Your task to perform on an android device: Open wifi settings Image 0: 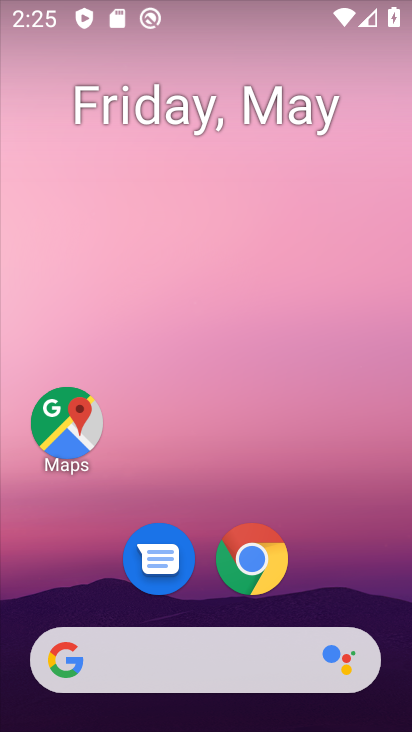
Step 0: drag from (354, 582) to (171, 23)
Your task to perform on an android device: Open wifi settings Image 1: 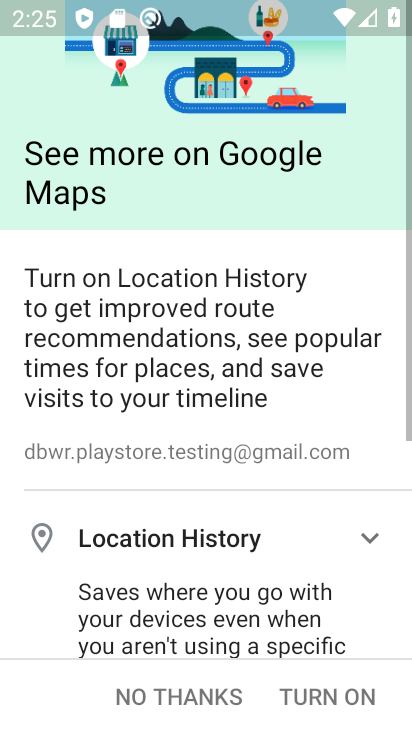
Step 1: press home button
Your task to perform on an android device: Open wifi settings Image 2: 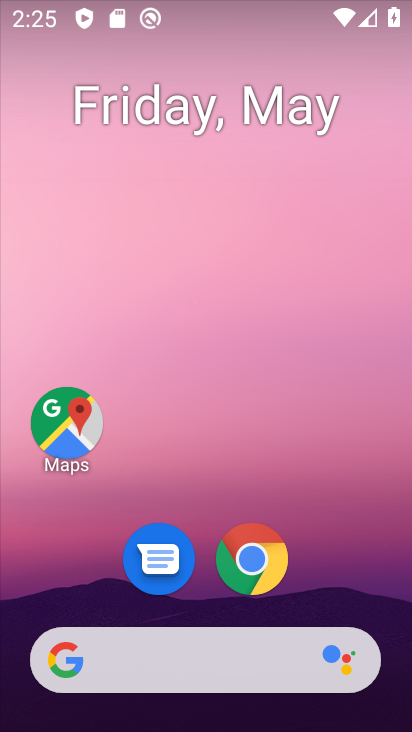
Step 2: drag from (312, 364) to (183, 31)
Your task to perform on an android device: Open wifi settings Image 3: 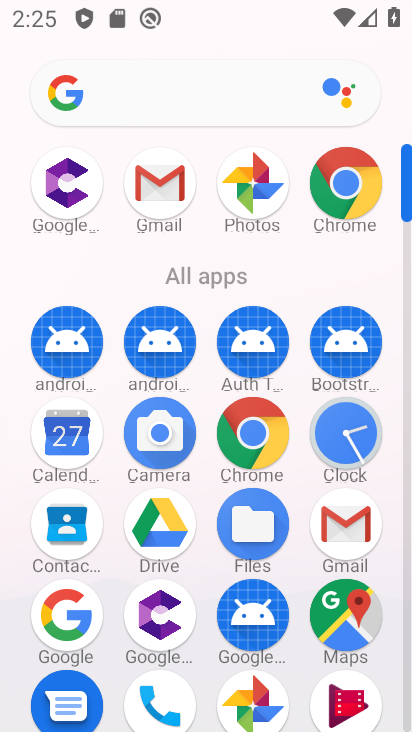
Step 3: drag from (207, 662) to (184, 212)
Your task to perform on an android device: Open wifi settings Image 4: 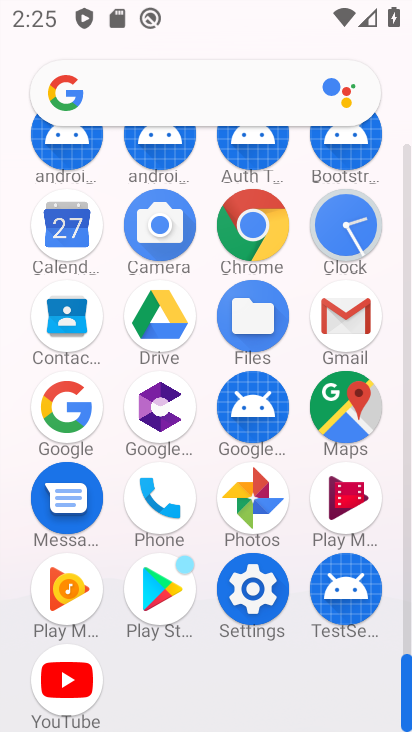
Step 4: click (253, 593)
Your task to perform on an android device: Open wifi settings Image 5: 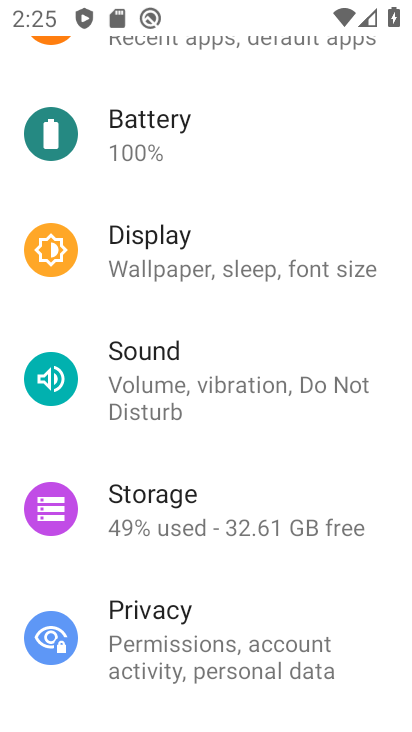
Step 5: drag from (243, 155) to (242, 663)
Your task to perform on an android device: Open wifi settings Image 6: 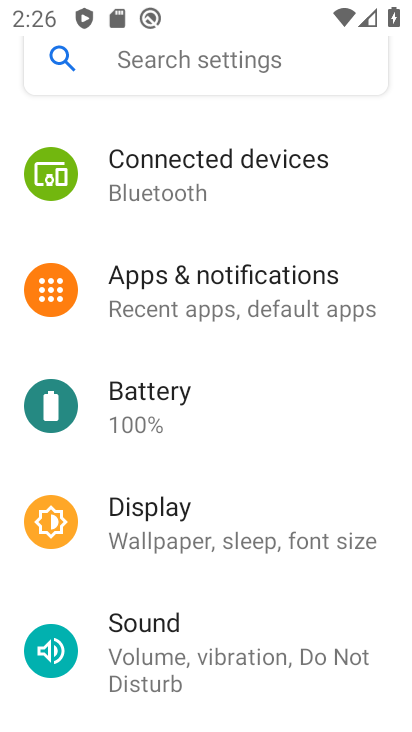
Step 6: drag from (233, 195) to (273, 691)
Your task to perform on an android device: Open wifi settings Image 7: 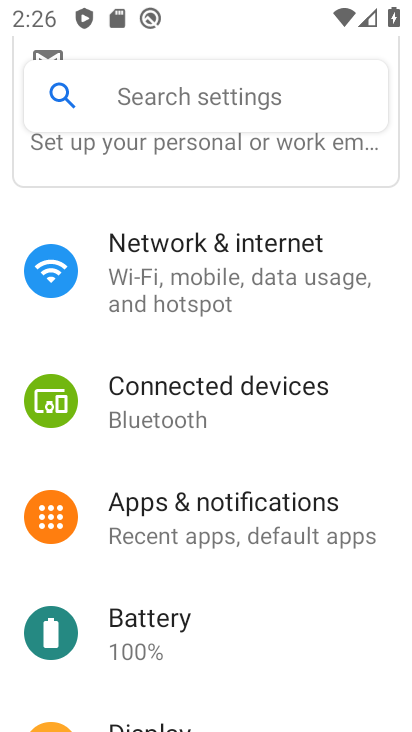
Step 7: click (235, 248)
Your task to perform on an android device: Open wifi settings Image 8: 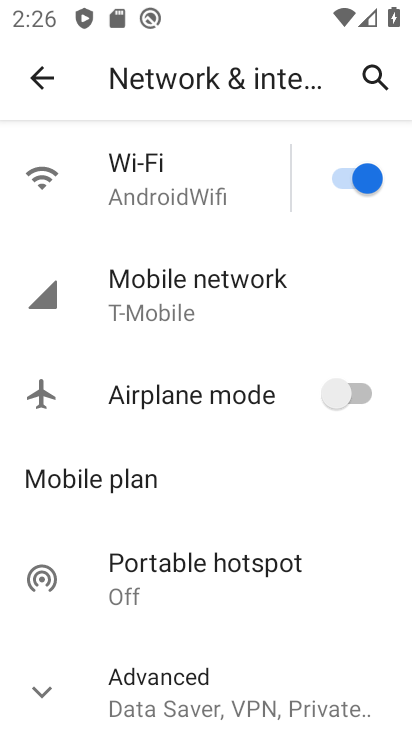
Step 8: click (161, 174)
Your task to perform on an android device: Open wifi settings Image 9: 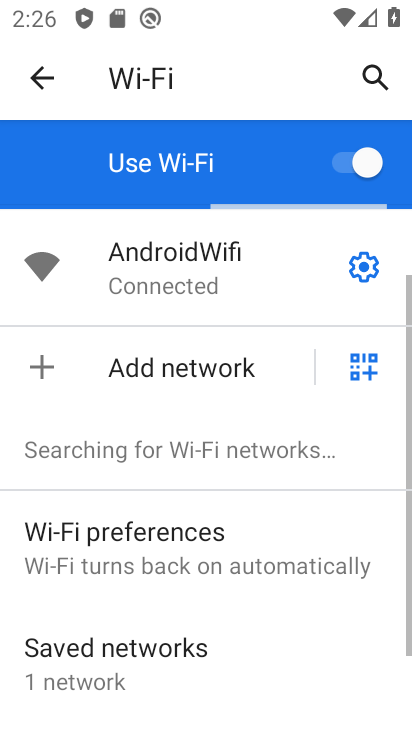
Step 9: task complete